Your task to perform on an android device: open a new tab in the chrome app Image 0: 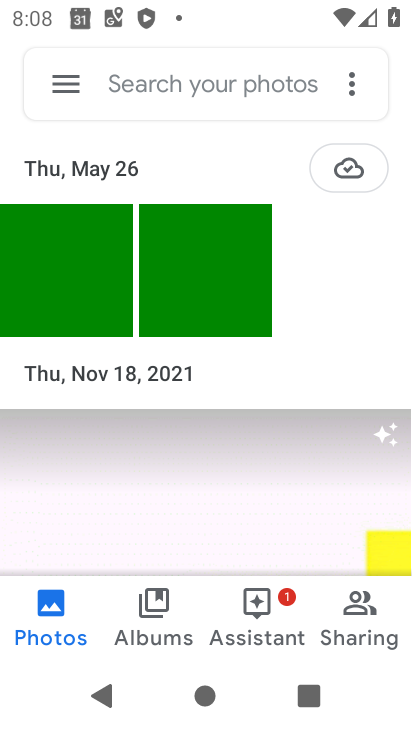
Step 0: press home button
Your task to perform on an android device: open a new tab in the chrome app Image 1: 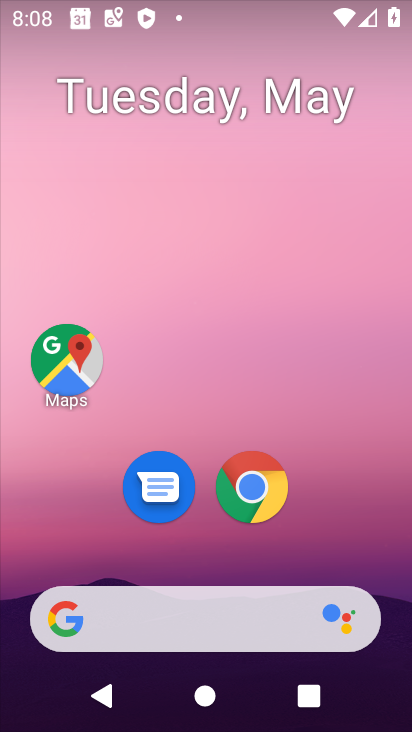
Step 1: drag from (330, 540) to (345, 202)
Your task to perform on an android device: open a new tab in the chrome app Image 2: 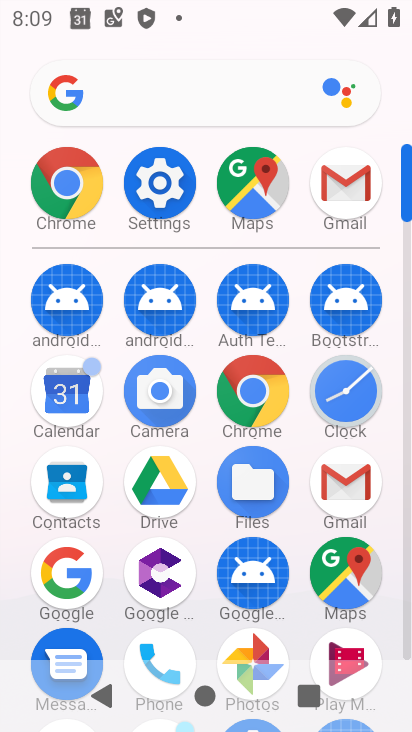
Step 2: click (266, 394)
Your task to perform on an android device: open a new tab in the chrome app Image 3: 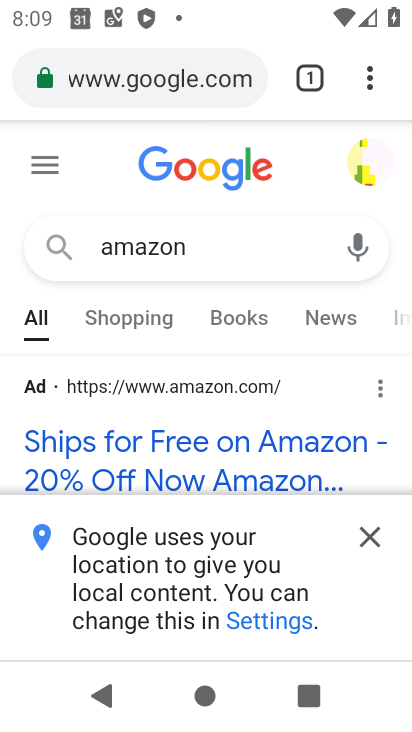
Step 3: click (370, 85)
Your task to perform on an android device: open a new tab in the chrome app Image 4: 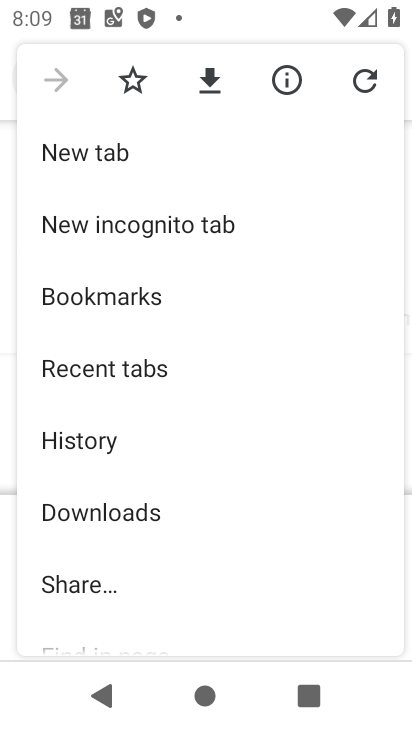
Step 4: click (124, 152)
Your task to perform on an android device: open a new tab in the chrome app Image 5: 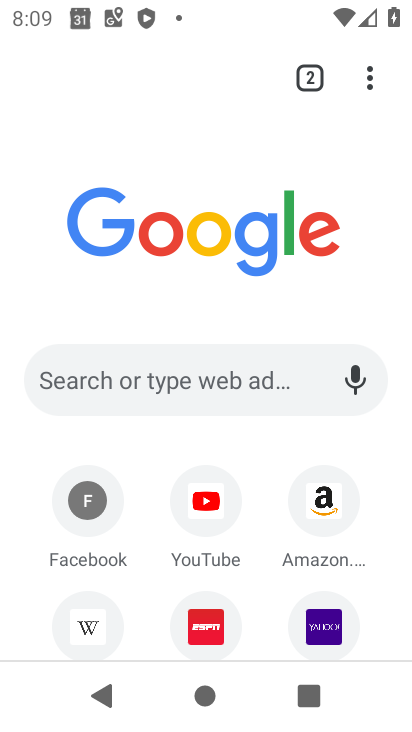
Step 5: task complete